Your task to perform on an android device: Go to Yahoo.com Image 0: 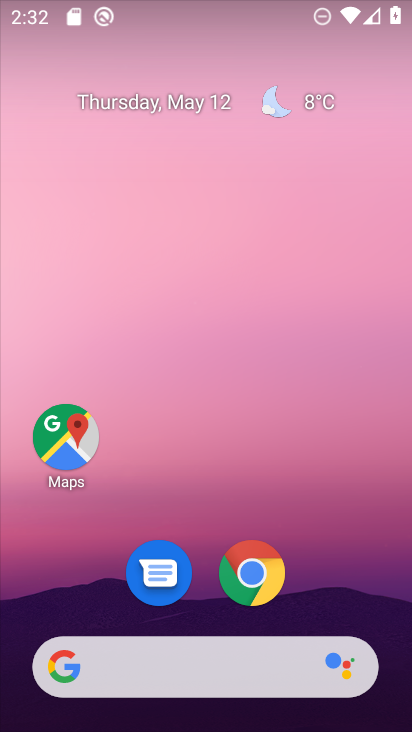
Step 0: drag from (402, 571) to (189, 0)
Your task to perform on an android device: Go to Yahoo.com Image 1: 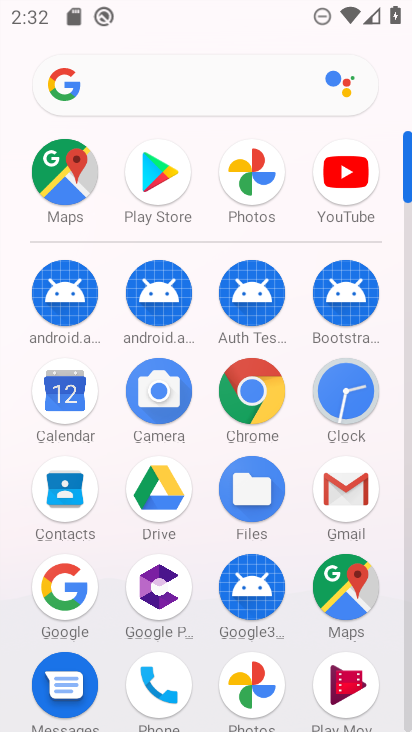
Step 1: click (256, 403)
Your task to perform on an android device: Go to Yahoo.com Image 2: 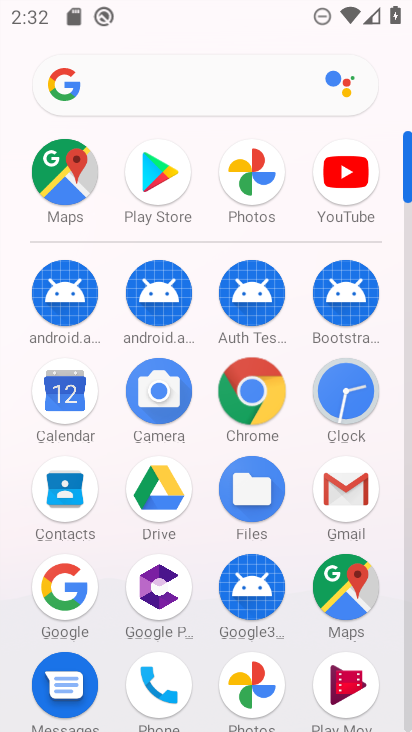
Step 2: click (256, 403)
Your task to perform on an android device: Go to Yahoo.com Image 3: 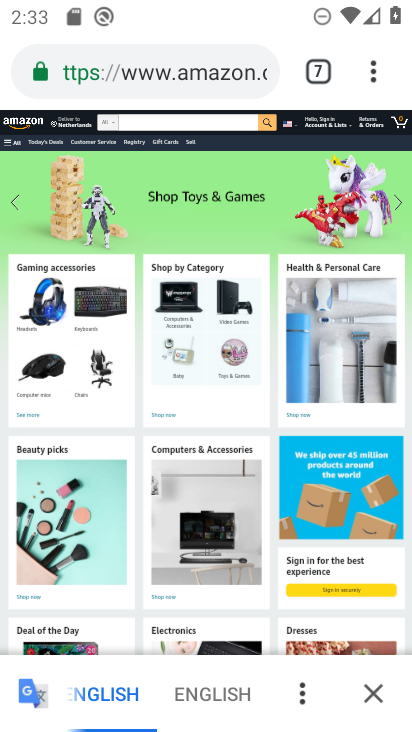
Step 3: drag from (373, 75) to (111, 142)
Your task to perform on an android device: Go to Yahoo.com Image 4: 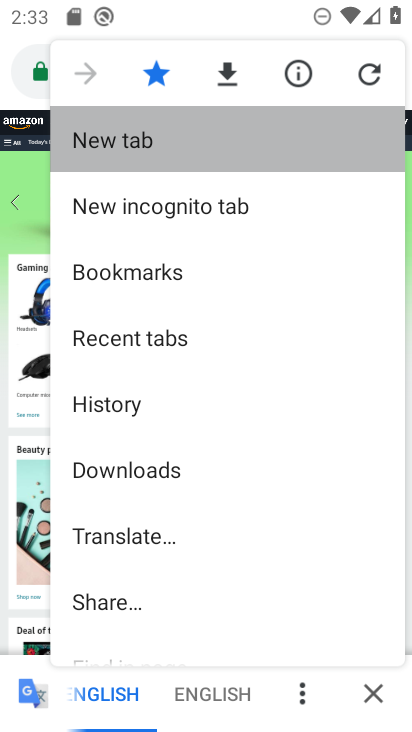
Step 4: click (111, 142)
Your task to perform on an android device: Go to Yahoo.com Image 5: 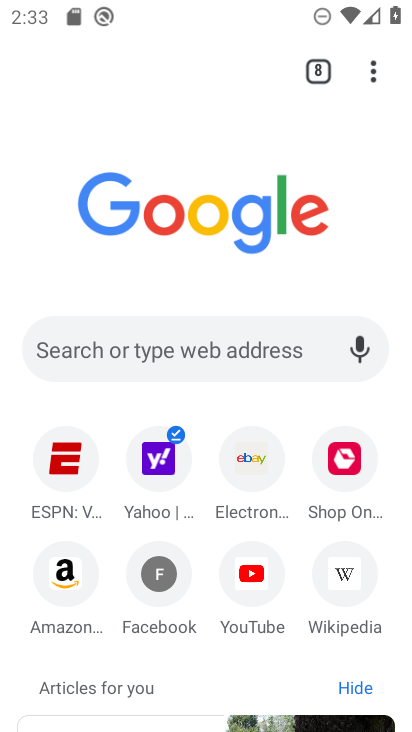
Step 5: click (158, 461)
Your task to perform on an android device: Go to Yahoo.com Image 6: 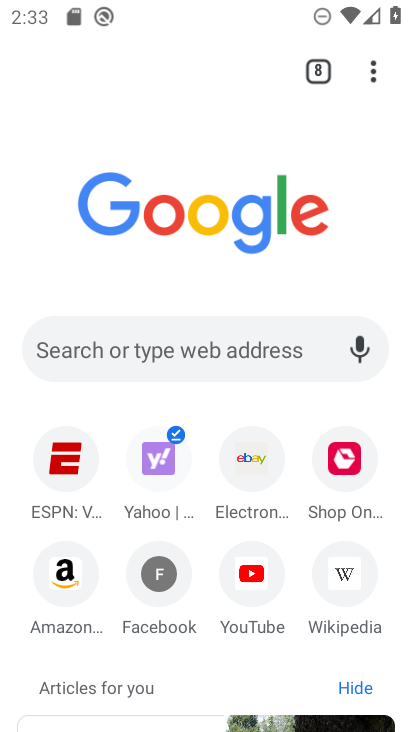
Step 6: click (157, 460)
Your task to perform on an android device: Go to Yahoo.com Image 7: 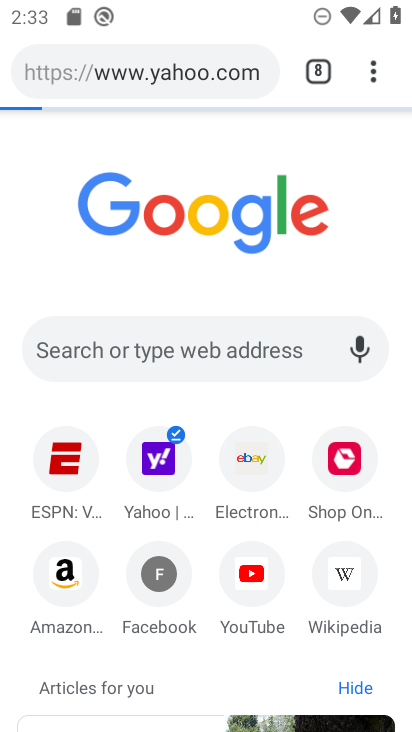
Step 7: click (157, 460)
Your task to perform on an android device: Go to Yahoo.com Image 8: 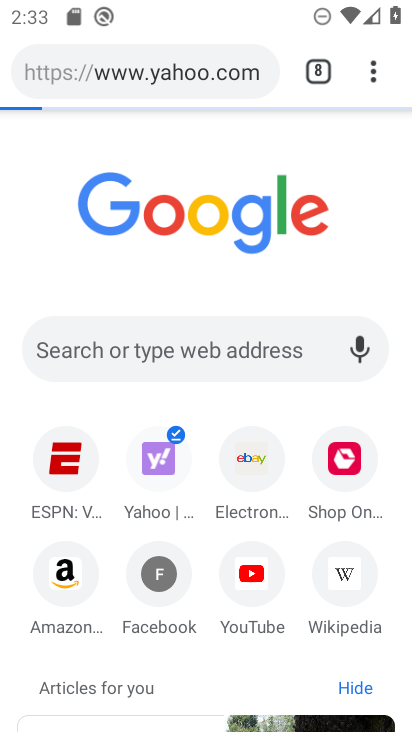
Step 8: click (157, 459)
Your task to perform on an android device: Go to Yahoo.com Image 9: 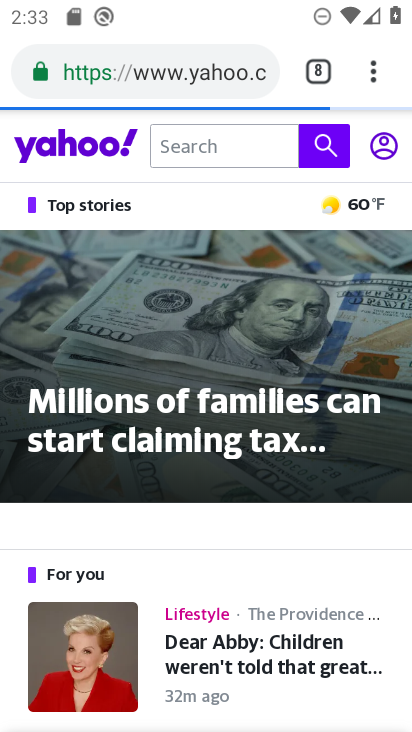
Step 9: task complete